Your task to perform on an android device: Open Amazon Image 0: 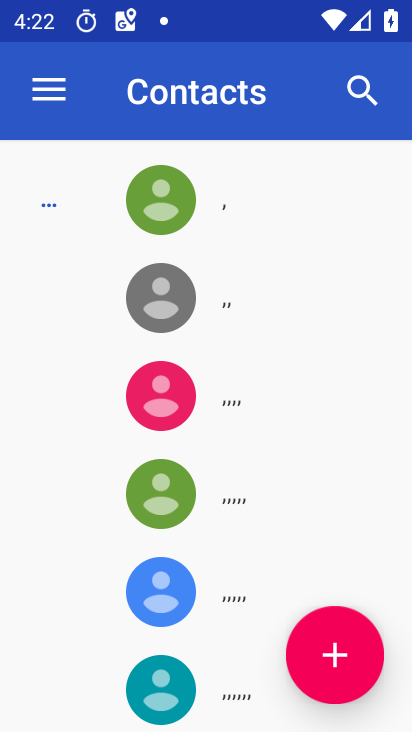
Step 0: press home button
Your task to perform on an android device: Open Amazon Image 1: 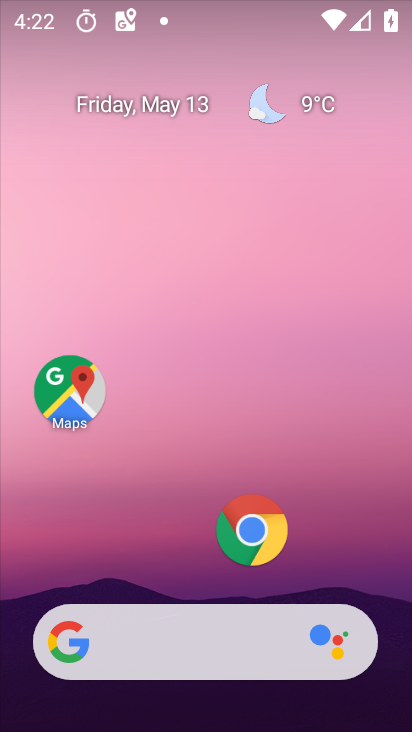
Step 1: click (261, 515)
Your task to perform on an android device: Open Amazon Image 2: 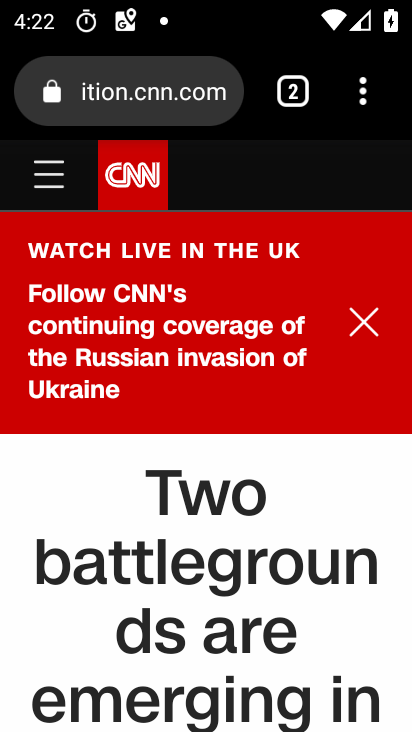
Step 2: click (293, 94)
Your task to perform on an android device: Open Amazon Image 3: 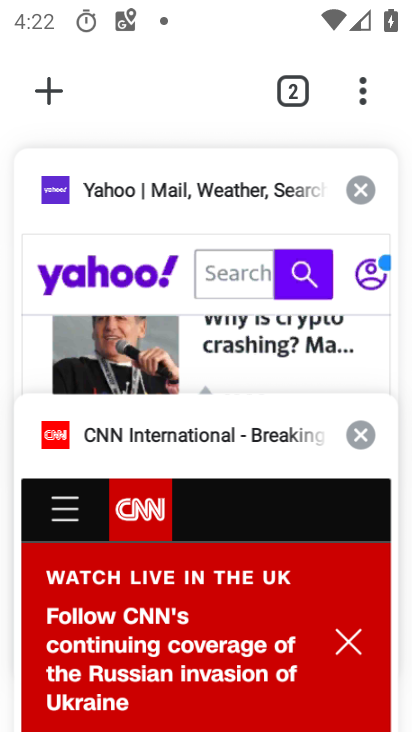
Step 3: click (361, 191)
Your task to perform on an android device: Open Amazon Image 4: 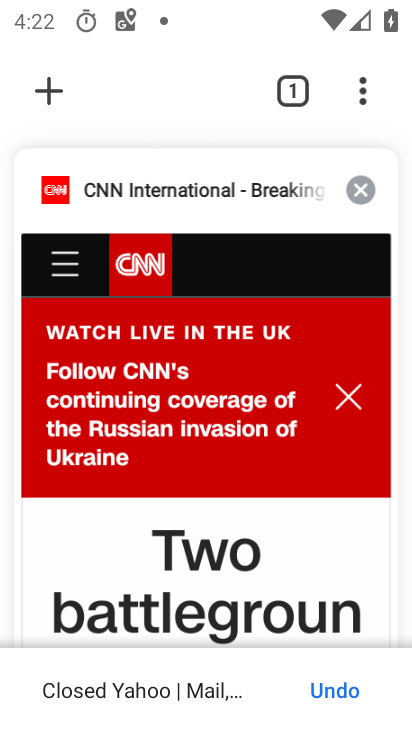
Step 4: click (359, 184)
Your task to perform on an android device: Open Amazon Image 5: 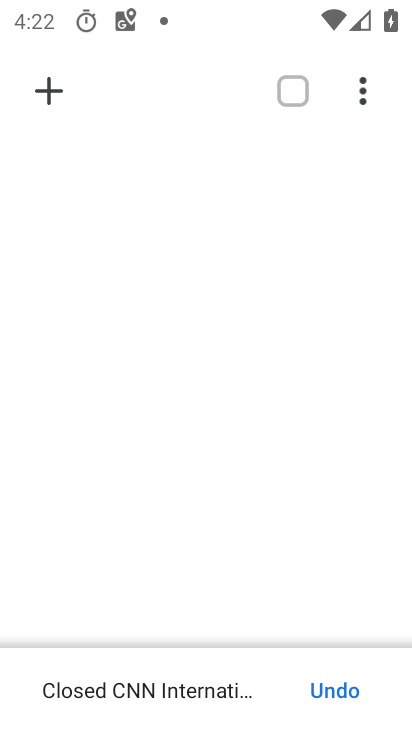
Step 5: click (54, 85)
Your task to perform on an android device: Open Amazon Image 6: 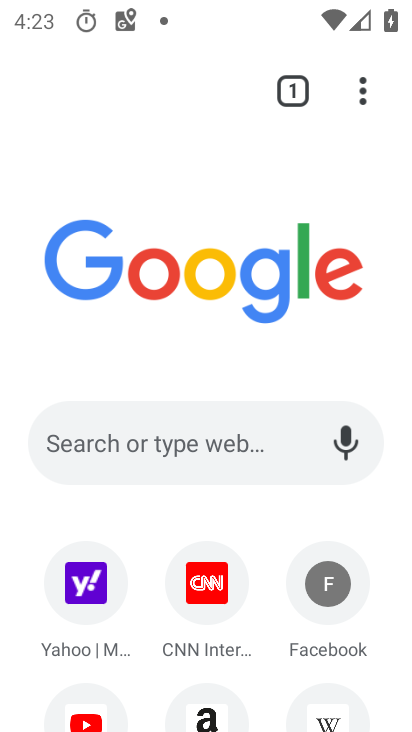
Step 6: click (206, 697)
Your task to perform on an android device: Open Amazon Image 7: 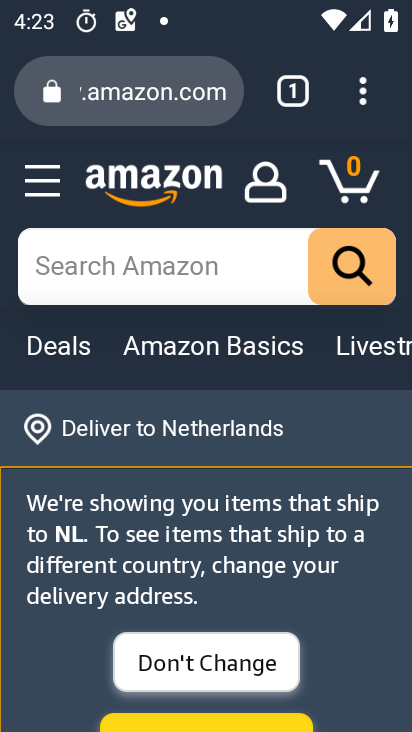
Step 7: task complete